Your task to perform on an android device: Is it going to rain tomorrow? Image 0: 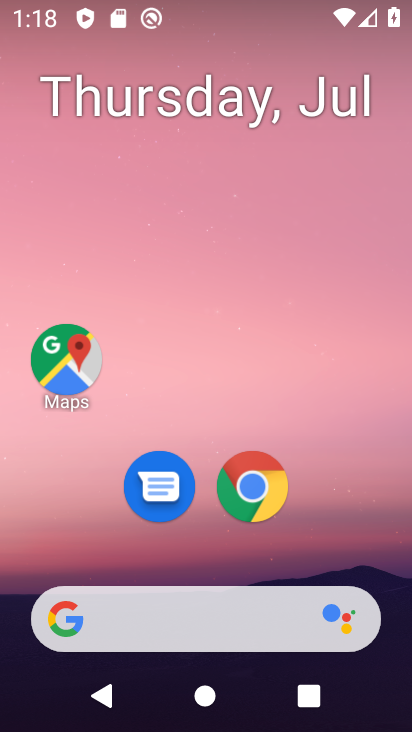
Step 0: drag from (184, 539) to (284, 0)
Your task to perform on an android device: Is it going to rain tomorrow? Image 1: 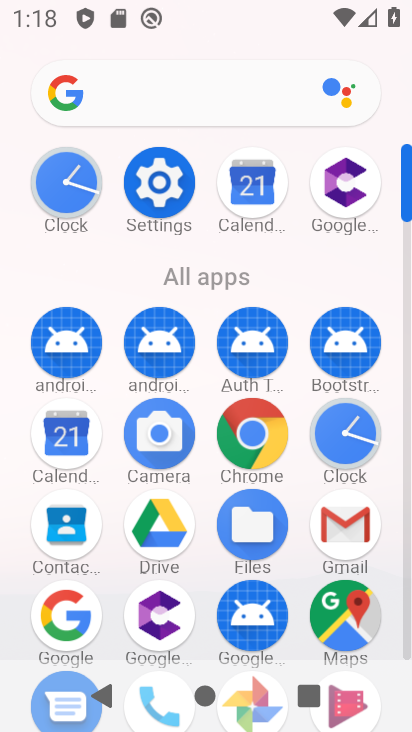
Step 1: click (256, 177)
Your task to perform on an android device: Is it going to rain tomorrow? Image 2: 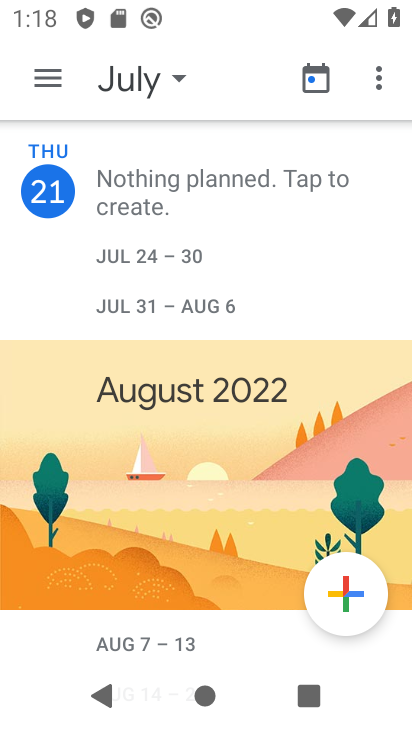
Step 2: press back button
Your task to perform on an android device: Is it going to rain tomorrow? Image 3: 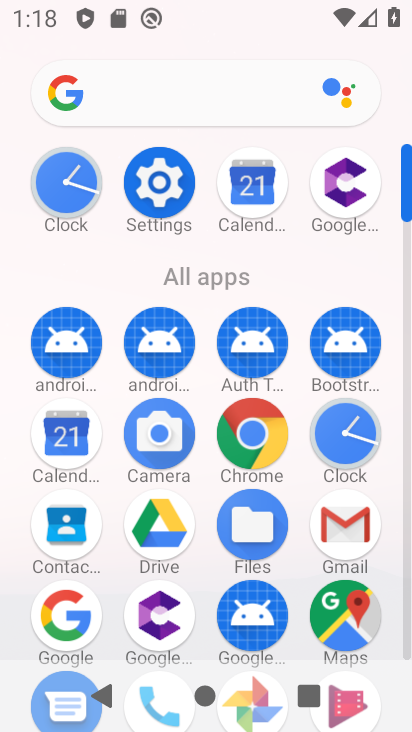
Step 3: click (163, 79)
Your task to perform on an android device: Is it going to rain tomorrow? Image 4: 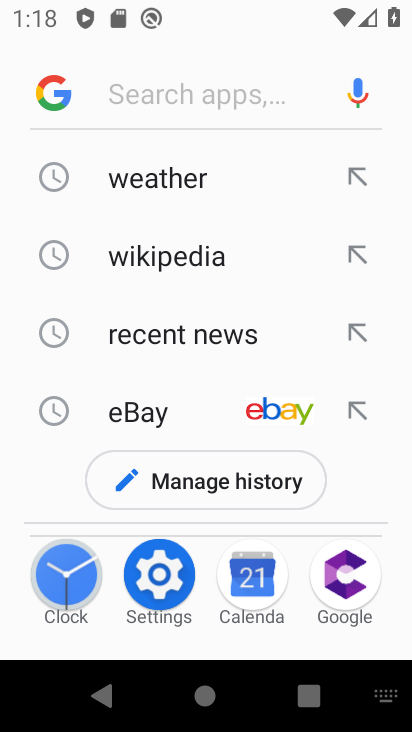
Step 4: click (137, 181)
Your task to perform on an android device: Is it going to rain tomorrow? Image 5: 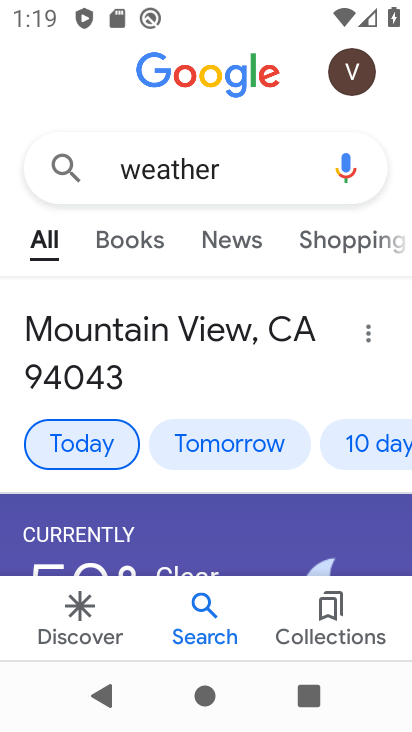
Step 5: click (217, 441)
Your task to perform on an android device: Is it going to rain tomorrow? Image 6: 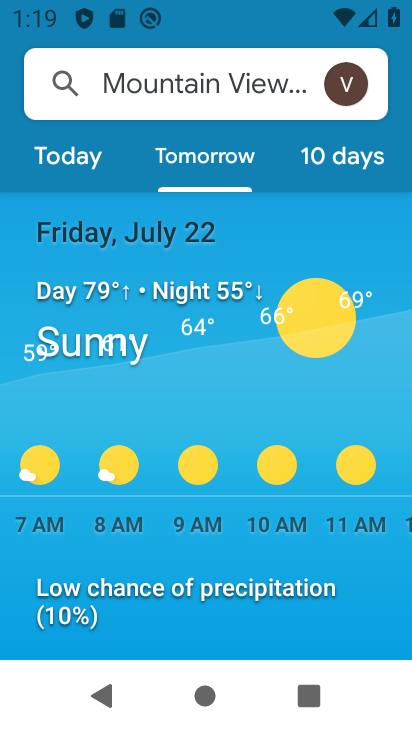
Step 6: task complete